Your task to perform on an android device: set default search engine in the chrome app Image 0: 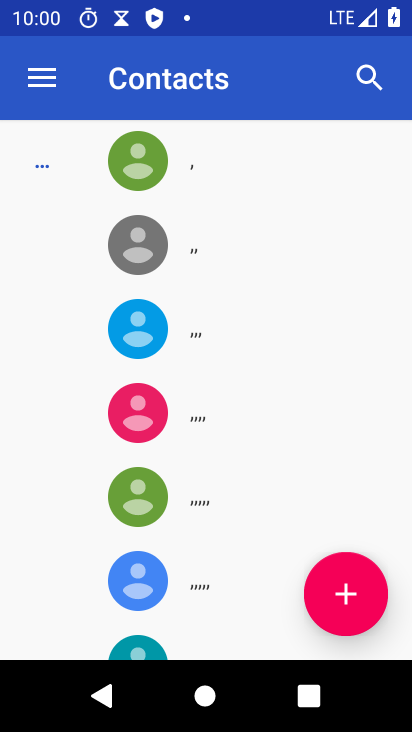
Step 0: press back button
Your task to perform on an android device: set default search engine in the chrome app Image 1: 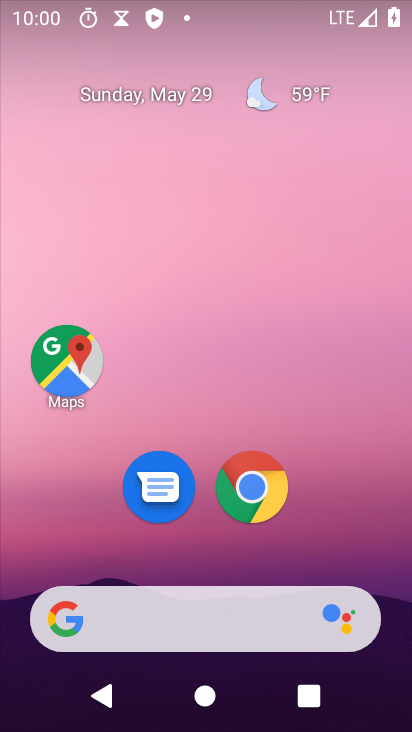
Step 1: click (253, 489)
Your task to perform on an android device: set default search engine in the chrome app Image 2: 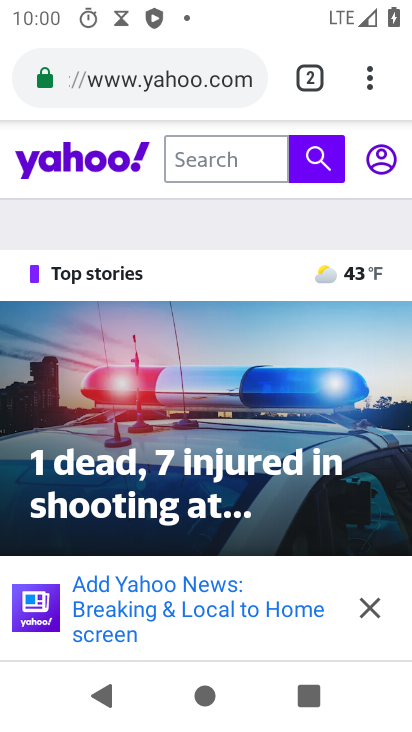
Step 2: click (367, 79)
Your task to perform on an android device: set default search engine in the chrome app Image 3: 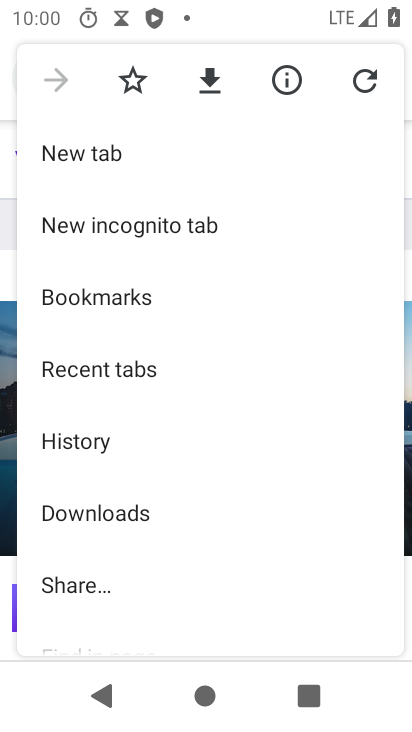
Step 3: drag from (81, 484) to (172, 364)
Your task to perform on an android device: set default search engine in the chrome app Image 4: 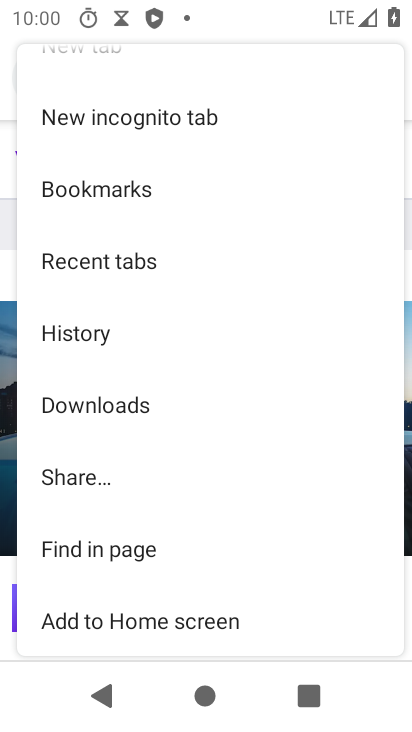
Step 4: drag from (95, 451) to (161, 327)
Your task to perform on an android device: set default search engine in the chrome app Image 5: 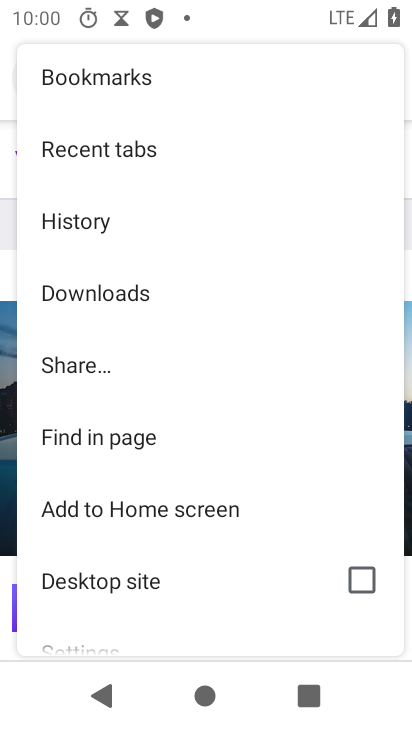
Step 5: drag from (79, 473) to (162, 359)
Your task to perform on an android device: set default search engine in the chrome app Image 6: 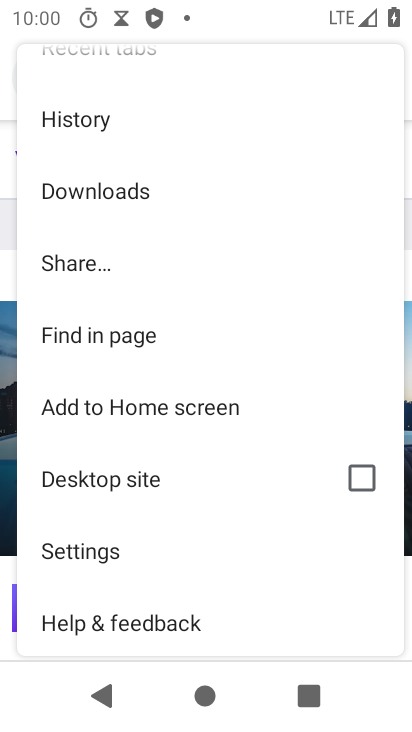
Step 6: click (91, 548)
Your task to perform on an android device: set default search engine in the chrome app Image 7: 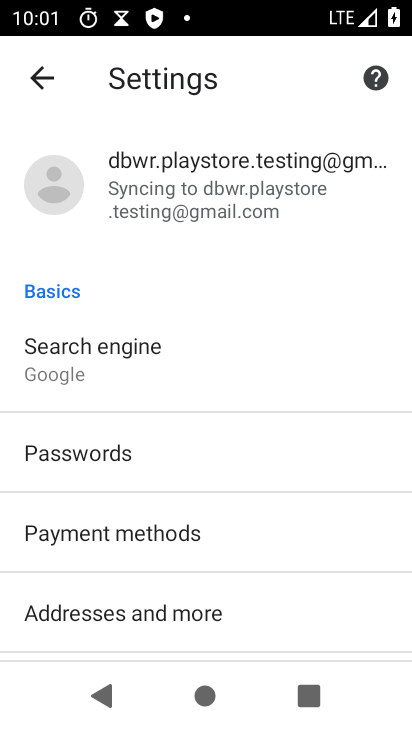
Step 7: click (111, 358)
Your task to perform on an android device: set default search engine in the chrome app Image 8: 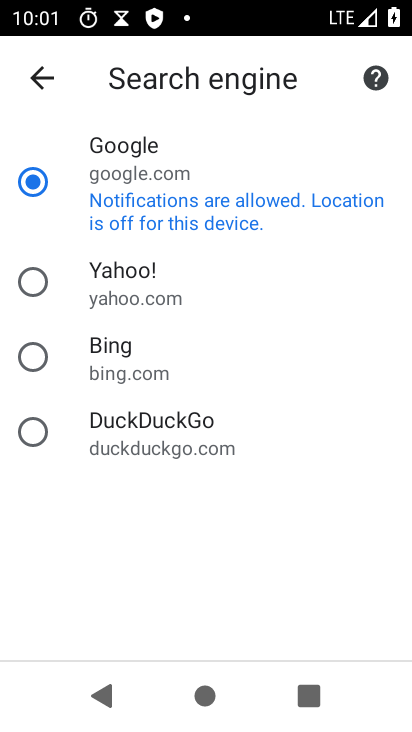
Step 8: click (29, 188)
Your task to perform on an android device: set default search engine in the chrome app Image 9: 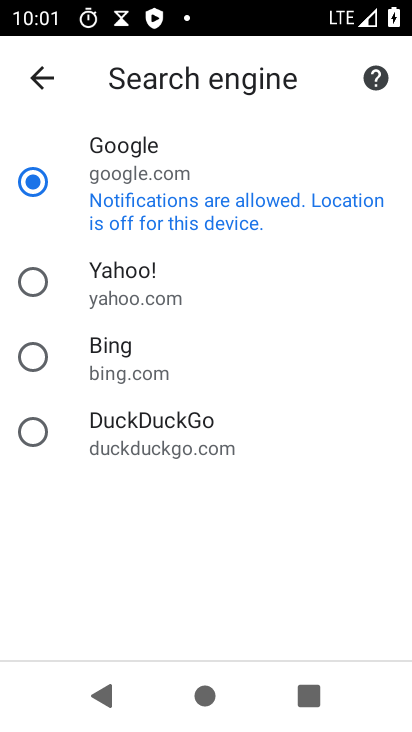
Step 9: task complete